Your task to perform on an android device: change alarm snooze length Image 0: 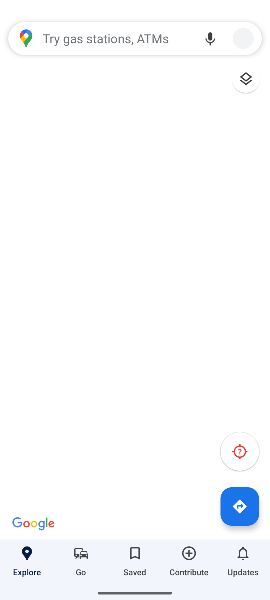
Step 0: press home button
Your task to perform on an android device: change alarm snooze length Image 1: 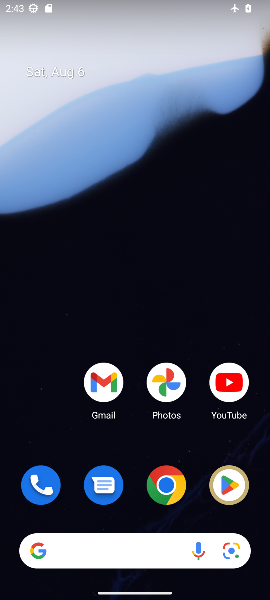
Step 1: drag from (134, 459) to (151, 0)
Your task to perform on an android device: change alarm snooze length Image 2: 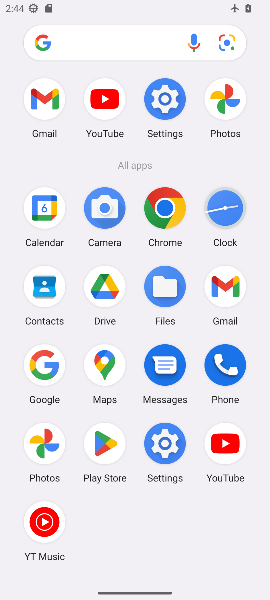
Step 2: click (224, 201)
Your task to perform on an android device: change alarm snooze length Image 3: 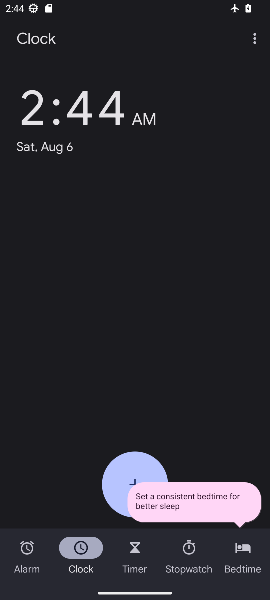
Step 3: click (253, 35)
Your task to perform on an android device: change alarm snooze length Image 4: 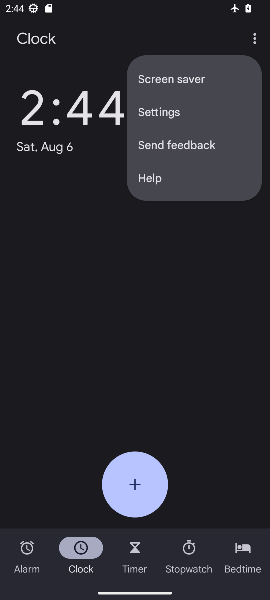
Step 4: click (183, 112)
Your task to perform on an android device: change alarm snooze length Image 5: 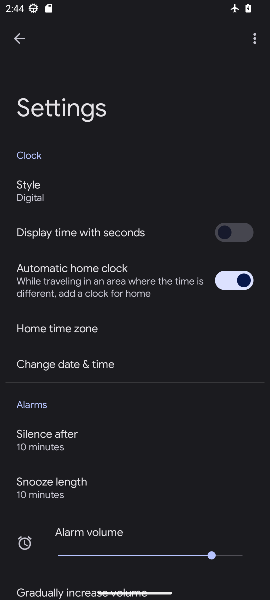
Step 5: click (100, 488)
Your task to perform on an android device: change alarm snooze length Image 6: 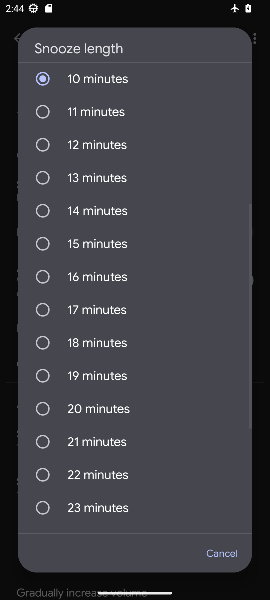
Step 6: drag from (84, 124) to (93, 445)
Your task to perform on an android device: change alarm snooze length Image 7: 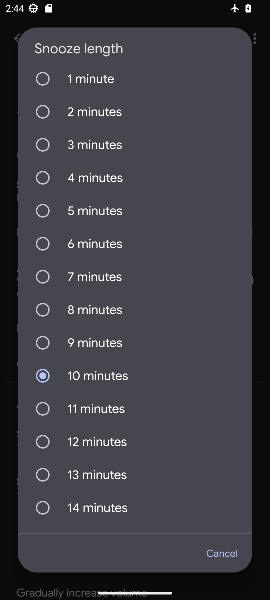
Step 7: click (40, 179)
Your task to perform on an android device: change alarm snooze length Image 8: 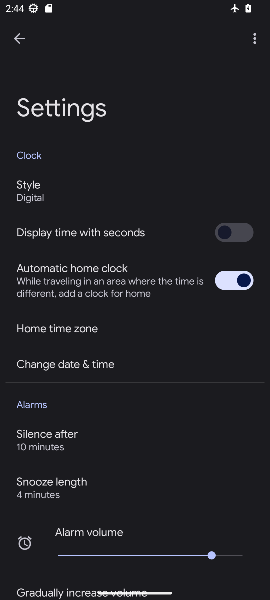
Step 8: task complete